Your task to perform on an android device: Search for Mexican restaurants on Maps Image 0: 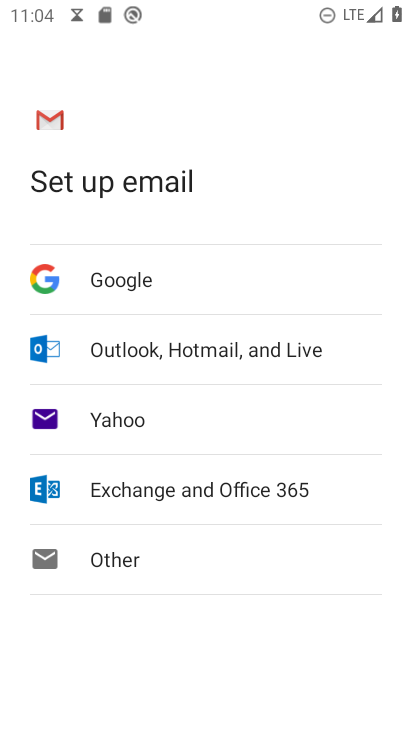
Step 0: press home button
Your task to perform on an android device: Search for Mexican restaurants on Maps Image 1: 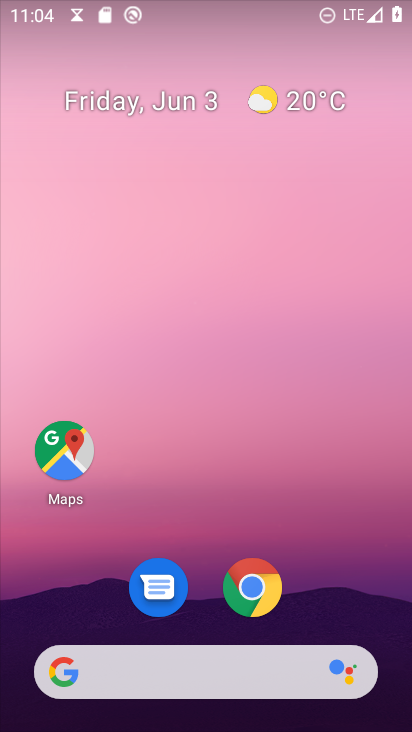
Step 1: click (60, 449)
Your task to perform on an android device: Search for Mexican restaurants on Maps Image 2: 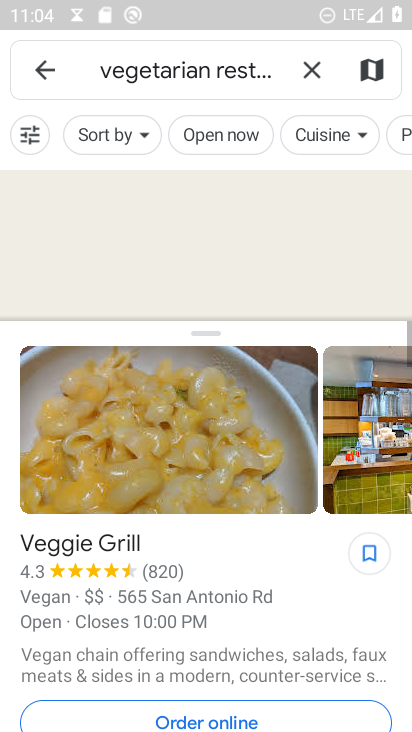
Step 2: click (316, 78)
Your task to perform on an android device: Search for Mexican restaurants on Maps Image 3: 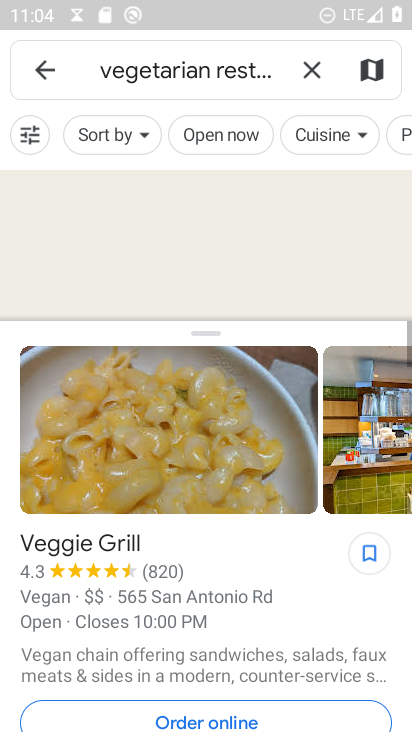
Step 3: click (192, 70)
Your task to perform on an android device: Search for Mexican restaurants on Maps Image 4: 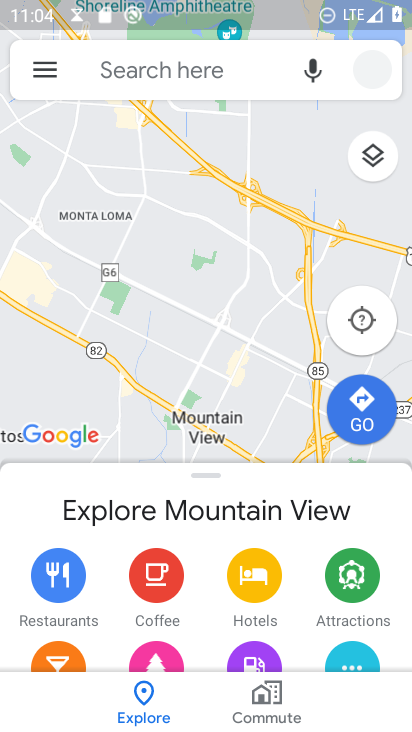
Step 4: click (165, 66)
Your task to perform on an android device: Search for Mexican restaurants on Maps Image 5: 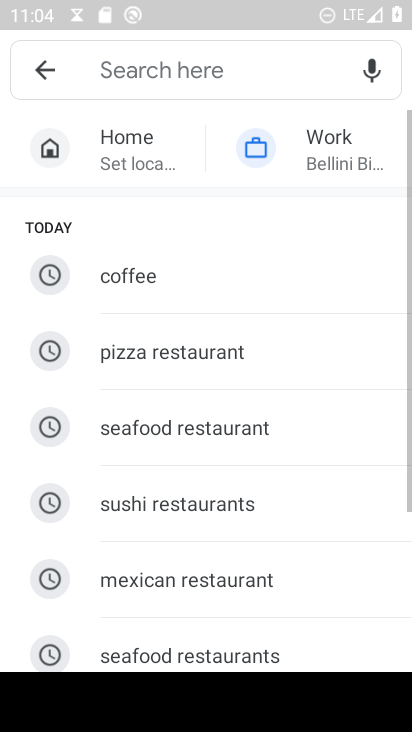
Step 5: click (202, 583)
Your task to perform on an android device: Search for Mexican restaurants on Maps Image 6: 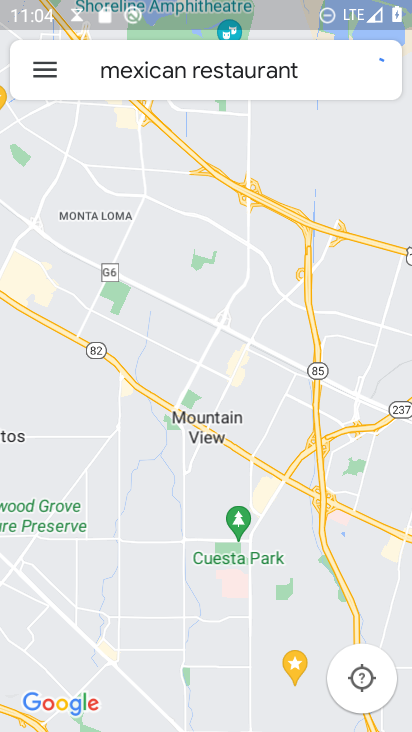
Step 6: task complete